Your task to perform on an android device: Open Chrome and go to the settings page Image 0: 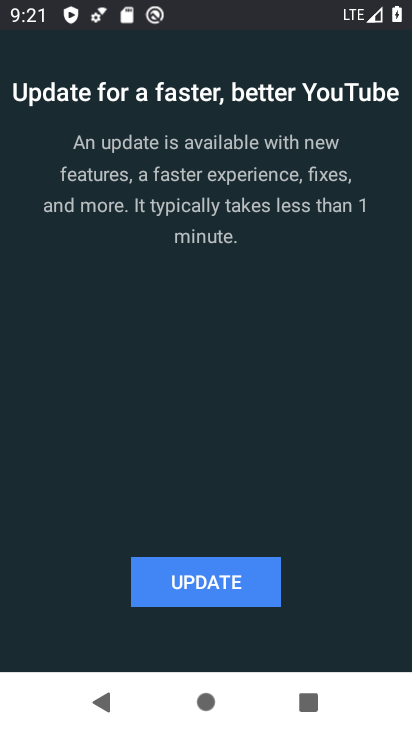
Step 0: press home button
Your task to perform on an android device: Open Chrome and go to the settings page Image 1: 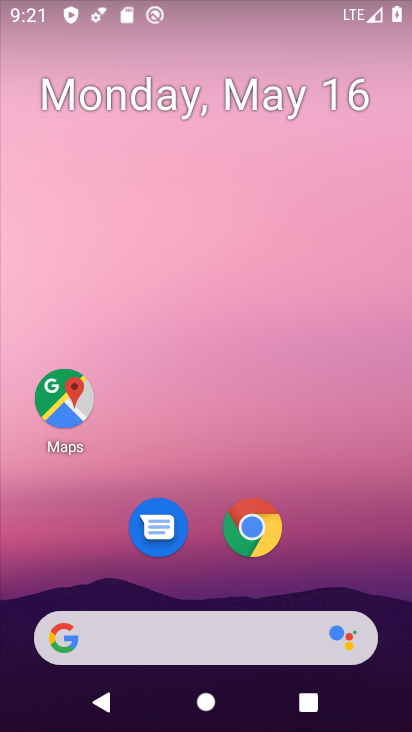
Step 1: click (251, 538)
Your task to perform on an android device: Open Chrome and go to the settings page Image 2: 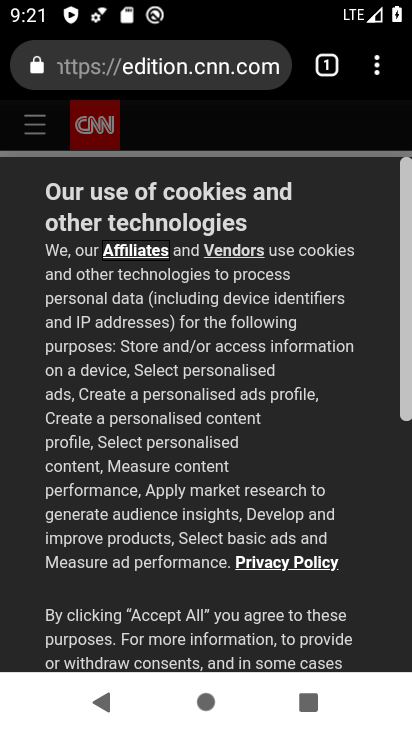
Step 2: click (378, 68)
Your task to perform on an android device: Open Chrome and go to the settings page Image 3: 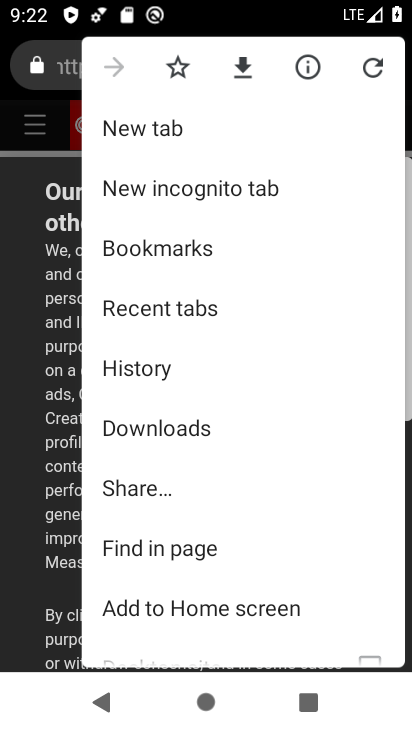
Step 3: drag from (257, 521) to (254, 260)
Your task to perform on an android device: Open Chrome and go to the settings page Image 4: 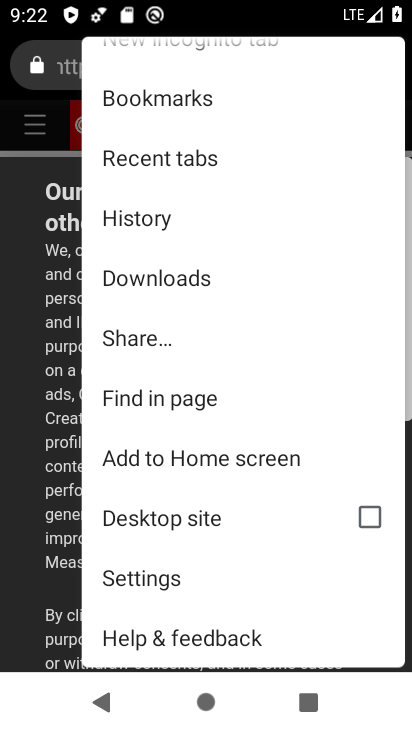
Step 4: click (134, 583)
Your task to perform on an android device: Open Chrome and go to the settings page Image 5: 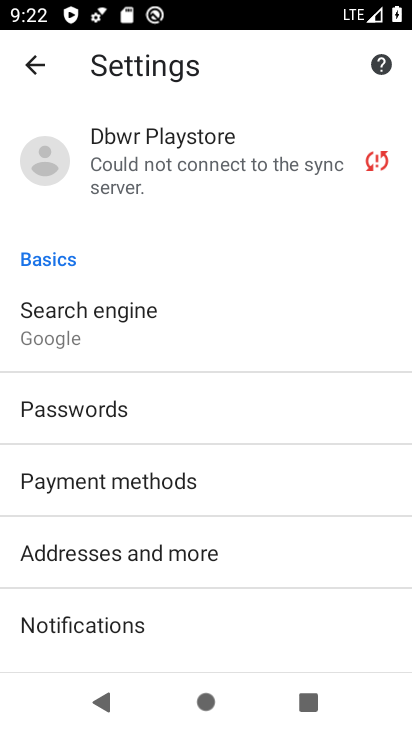
Step 5: task complete